Your task to perform on an android device: delete browsing data in the chrome app Image 0: 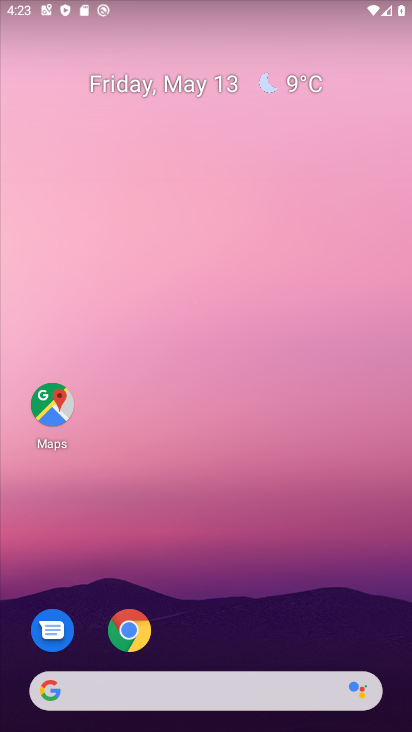
Step 0: drag from (230, 557) to (230, 78)
Your task to perform on an android device: delete browsing data in the chrome app Image 1: 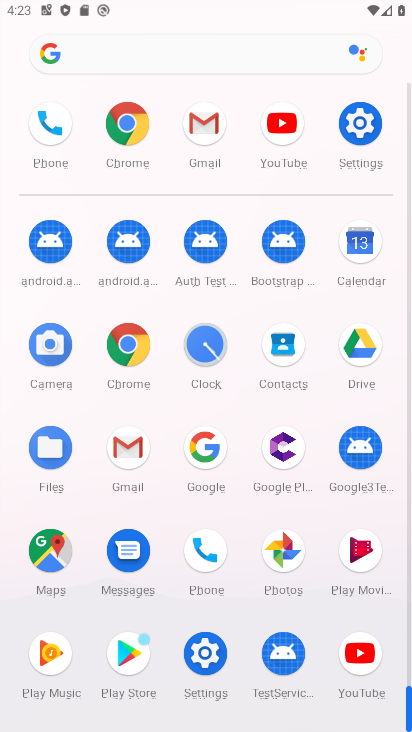
Step 1: click (124, 346)
Your task to perform on an android device: delete browsing data in the chrome app Image 2: 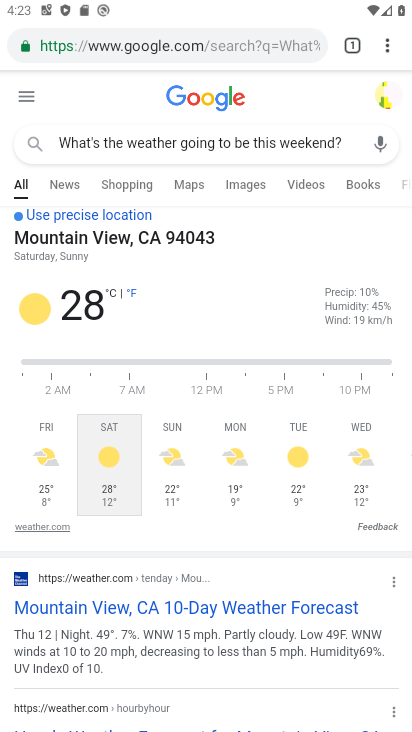
Step 2: drag from (387, 52) to (238, 254)
Your task to perform on an android device: delete browsing data in the chrome app Image 3: 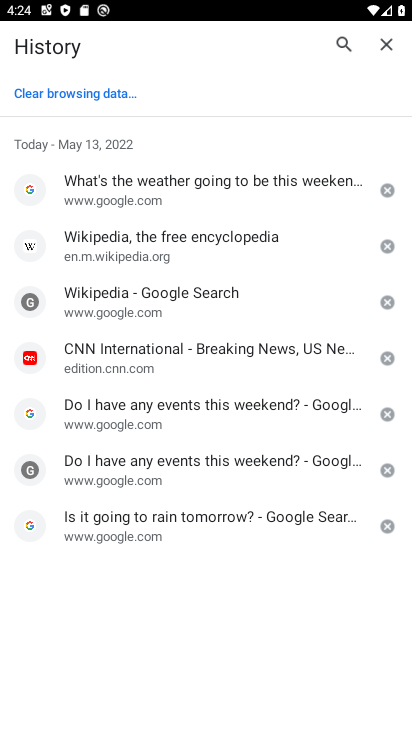
Step 3: click (102, 91)
Your task to perform on an android device: delete browsing data in the chrome app Image 4: 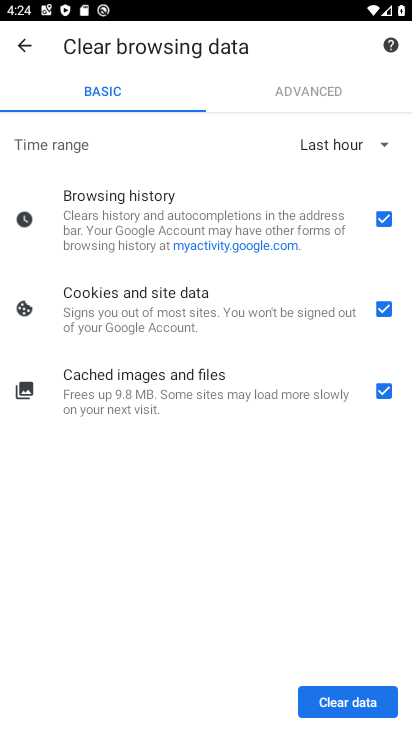
Step 4: click (347, 686)
Your task to perform on an android device: delete browsing data in the chrome app Image 5: 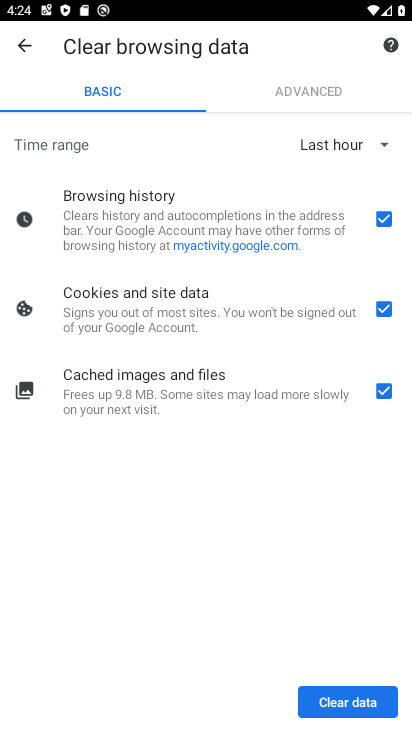
Step 5: click (341, 691)
Your task to perform on an android device: delete browsing data in the chrome app Image 6: 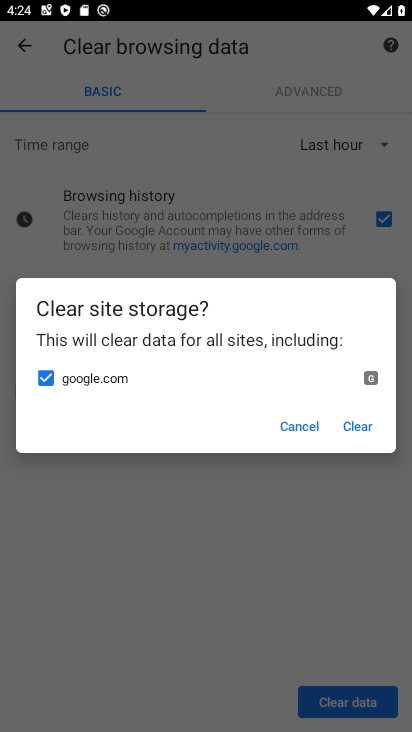
Step 6: click (363, 428)
Your task to perform on an android device: delete browsing data in the chrome app Image 7: 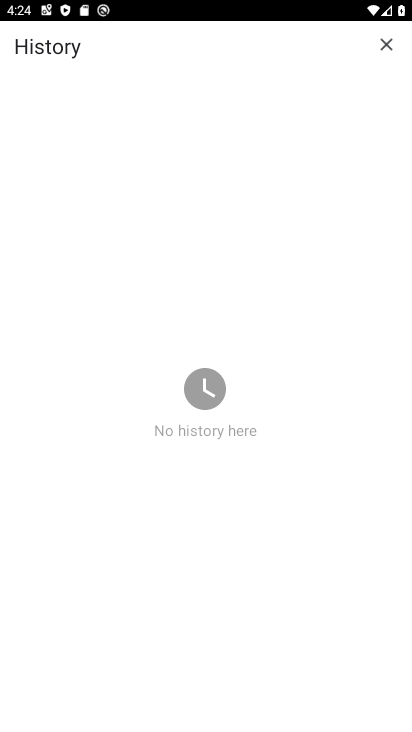
Step 7: task complete